Your task to perform on an android device: clear history in the chrome app Image 0: 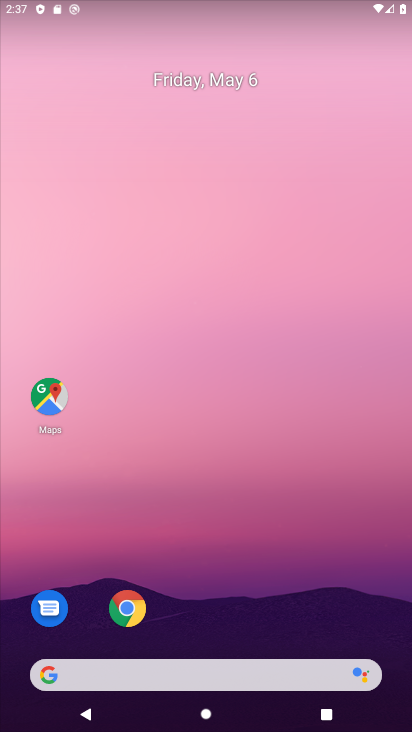
Step 0: click (118, 604)
Your task to perform on an android device: clear history in the chrome app Image 1: 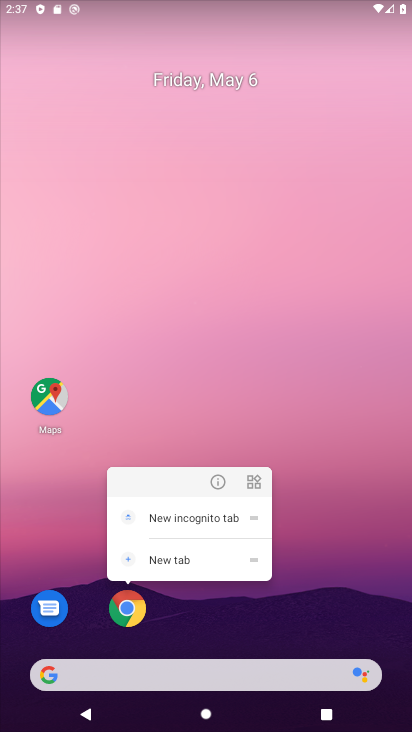
Step 1: click (127, 605)
Your task to perform on an android device: clear history in the chrome app Image 2: 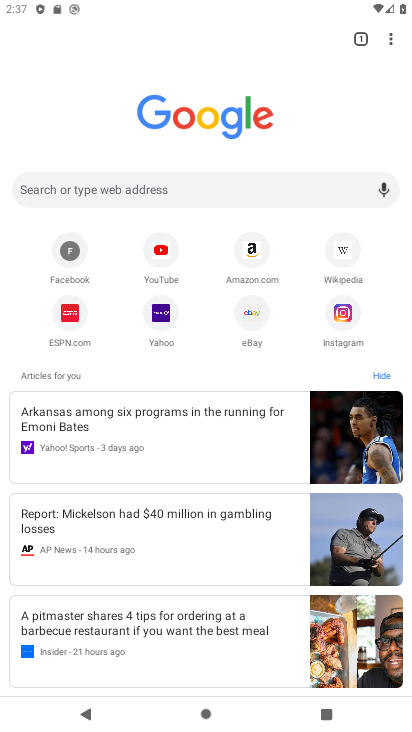
Step 2: click (389, 39)
Your task to perform on an android device: clear history in the chrome app Image 3: 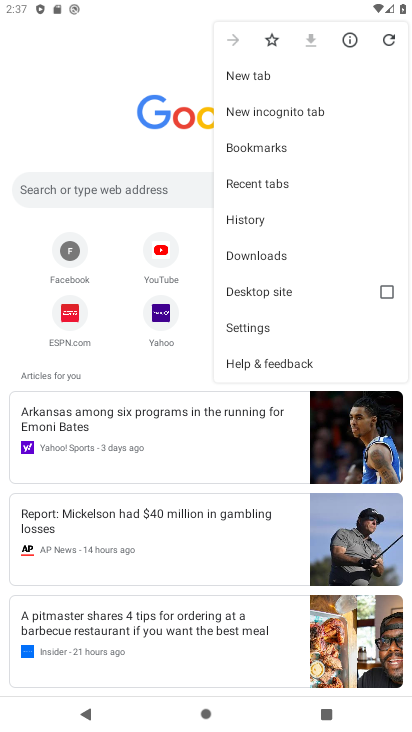
Step 3: click (257, 218)
Your task to perform on an android device: clear history in the chrome app Image 4: 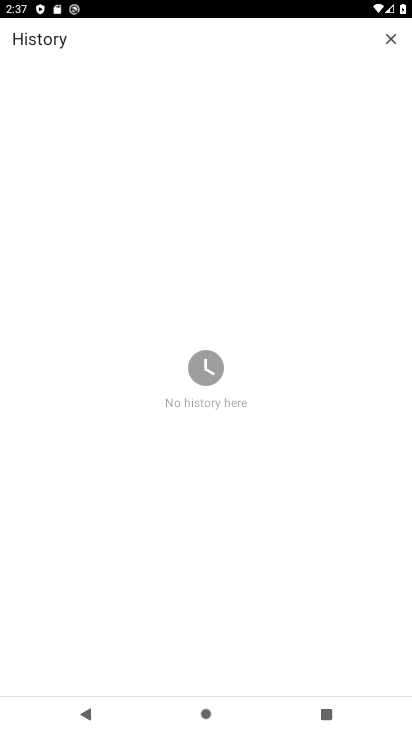
Step 4: task complete